Your task to perform on an android device: Open privacy settings Image 0: 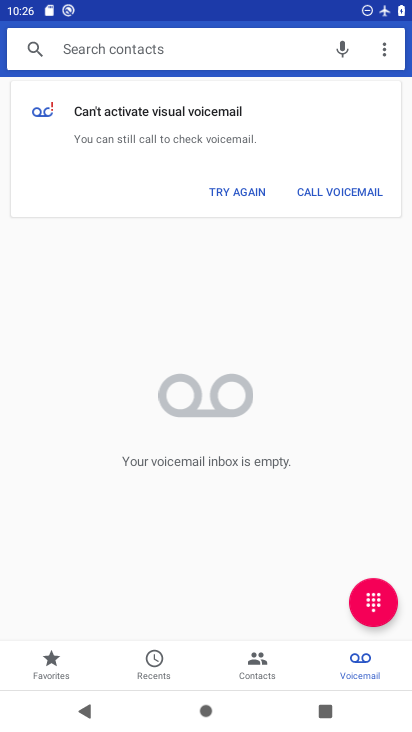
Step 0: drag from (333, 589) to (337, 504)
Your task to perform on an android device: Open privacy settings Image 1: 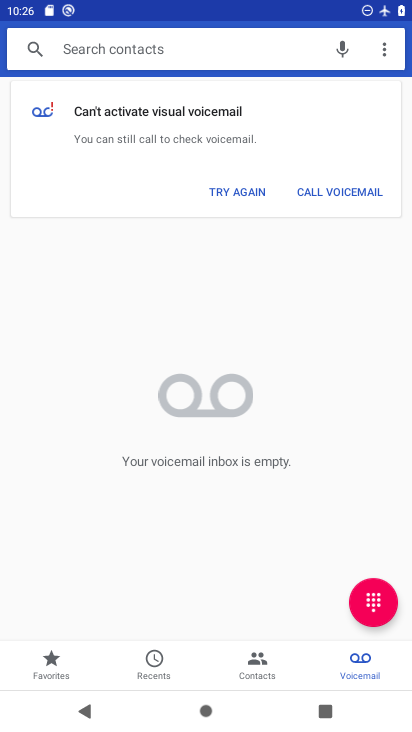
Step 1: press home button
Your task to perform on an android device: Open privacy settings Image 2: 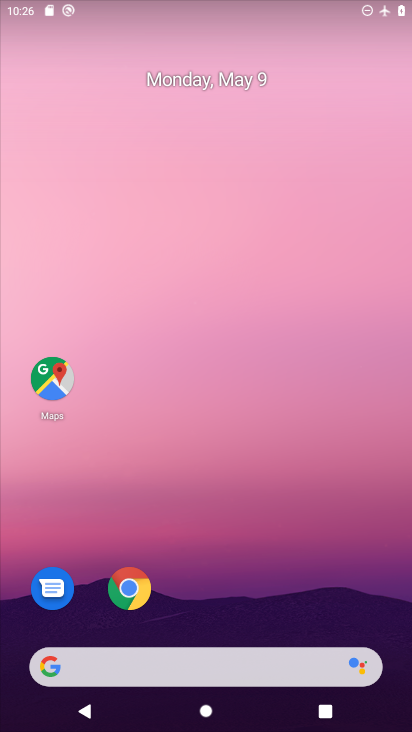
Step 2: drag from (239, 613) to (282, 20)
Your task to perform on an android device: Open privacy settings Image 3: 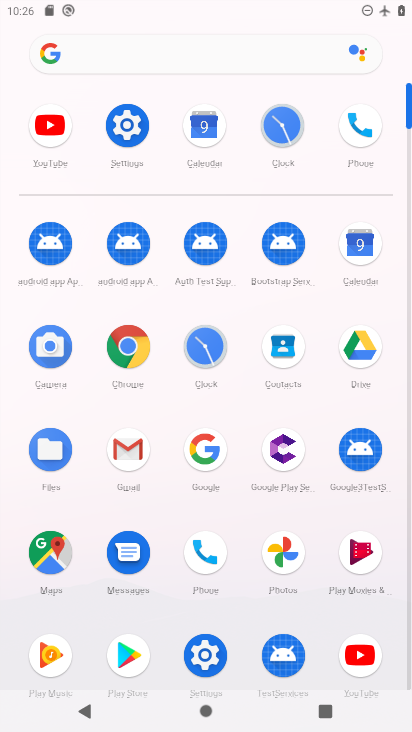
Step 3: click (210, 639)
Your task to perform on an android device: Open privacy settings Image 4: 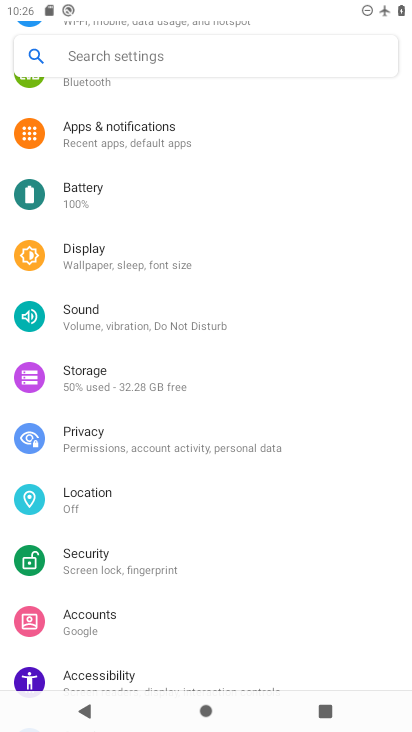
Step 4: click (130, 432)
Your task to perform on an android device: Open privacy settings Image 5: 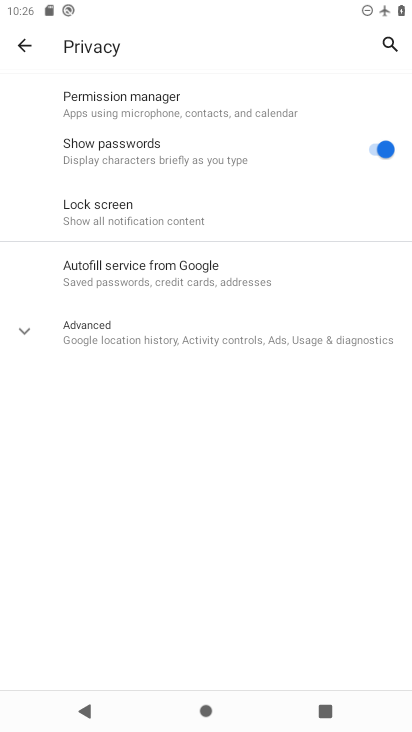
Step 5: task complete